Your task to perform on an android device: open the mobile data screen to see how much data has been used Image 0: 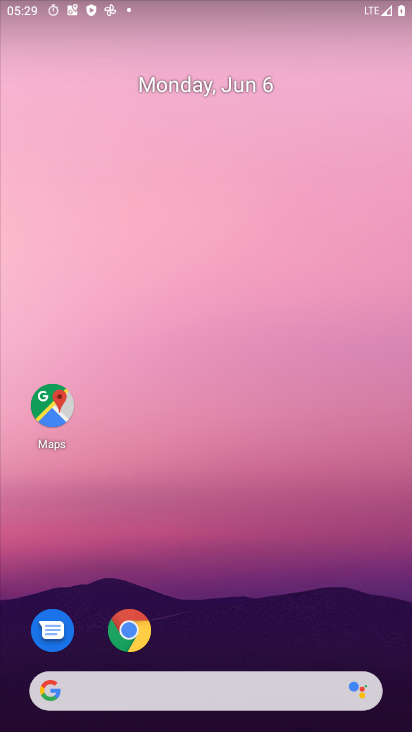
Step 0: drag from (245, 613) to (223, 36)
Your task to perform on an android device: open the mobile data screen to see how much data has been used Image 1: 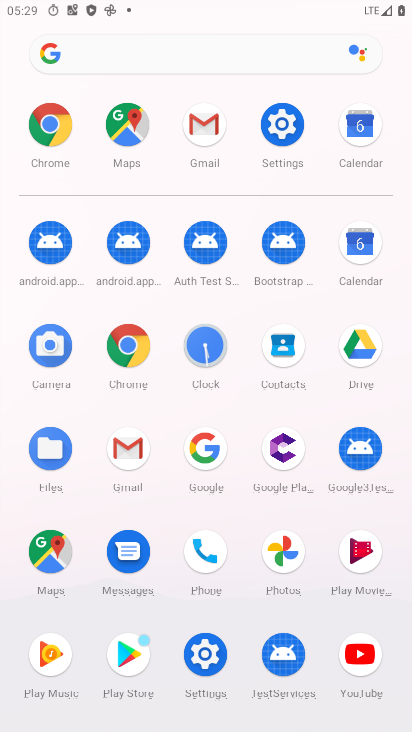
Step 1: click (200, 657)
Your task to perform on an android device: open the mobile data screen to see how much data has been used Image 2: 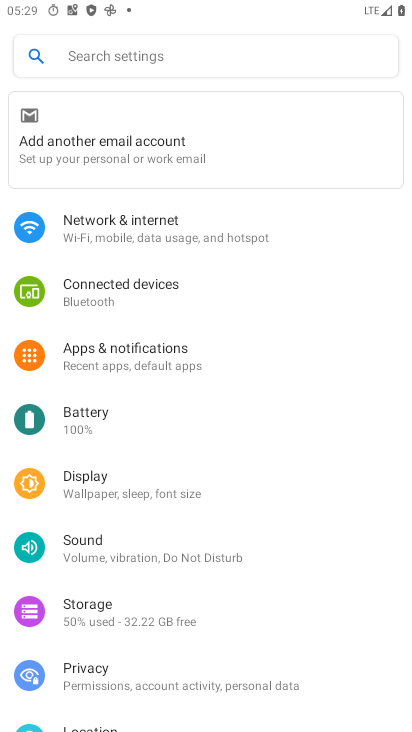
Step 2: click (121, 224)
Your task to perform on an android device: open the mobile data screen to see how much data has been used Image 3: 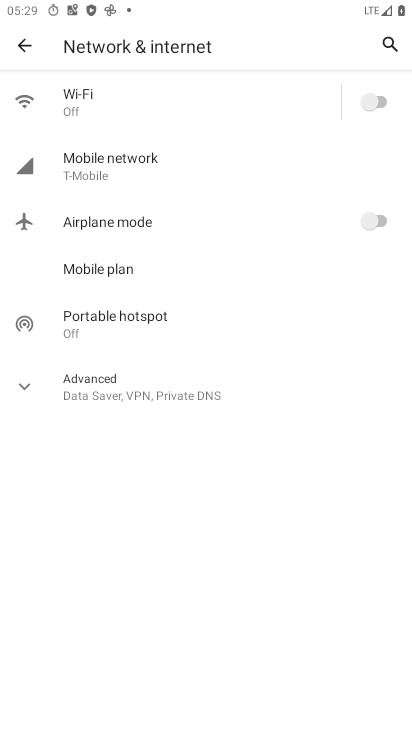
Step 3: click (104, 158)
Your task to perform on an android device: open the mobile data screen to see how much data has been used Image 4: 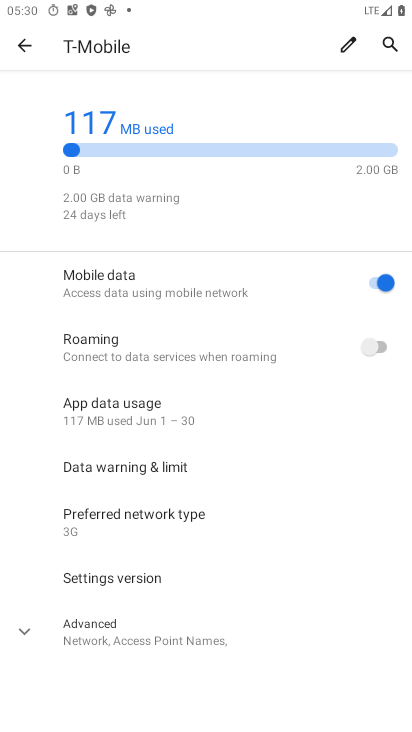
Step 4: task complete